Your task to perform on an android device: Go to privacy settings Image 0: 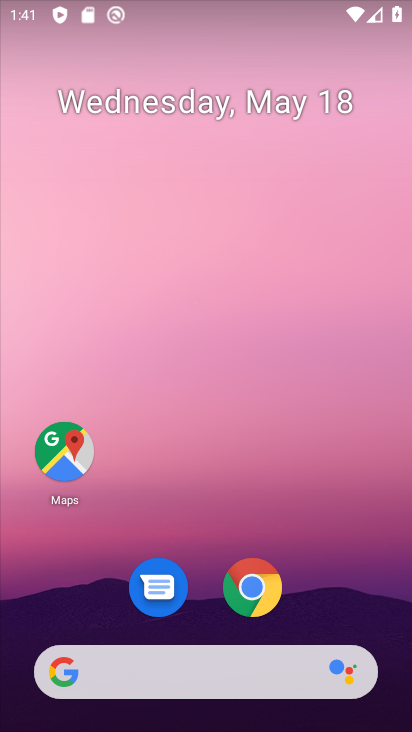
Step 0: drag from (333, 622) to (278, 34)
Your task to perform on an android device: Go to privacy settings Image 1: 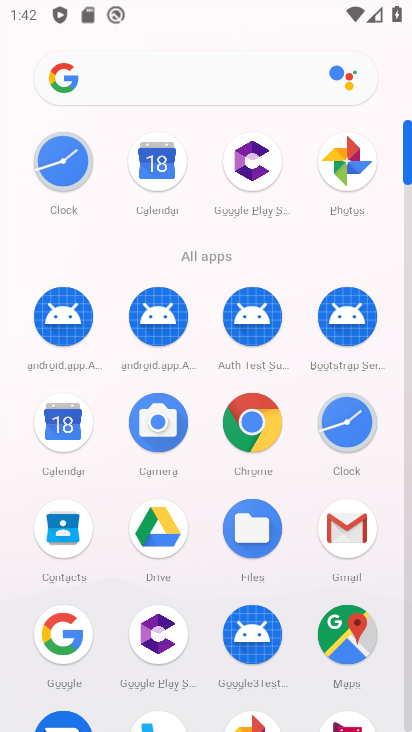
Step 1: drag from (409, 516) to (410, 481)
Your task to perform on an android device: Go to privacy settings Image 2: 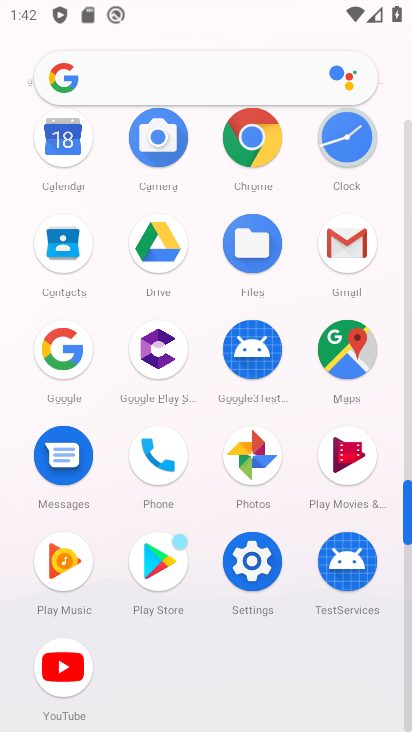
Step 2: click (239, 559)
Your task to perform on an android device: Go to privacy settings Image 3: 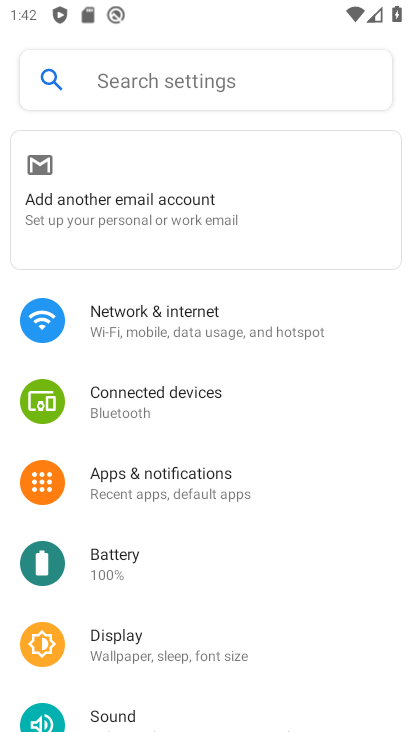
Step 3: drag from (369, 597) to (344, 315)
Your task to perform on an android device: Go to privacy settings Image 4: 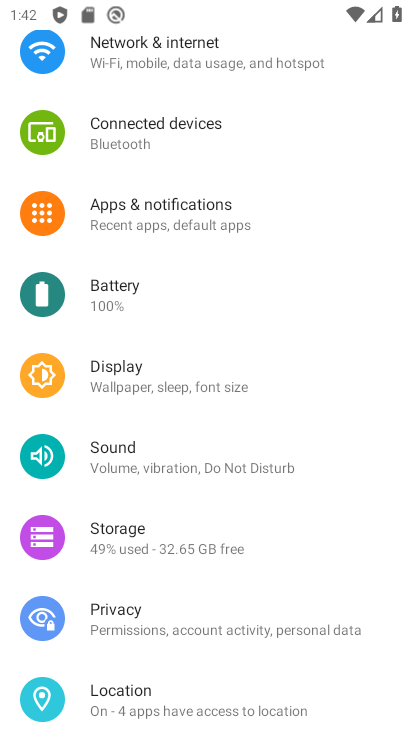
Step 4: click (127, 619)
Your task to perform on an android device: Go to privacy settings Image 5: 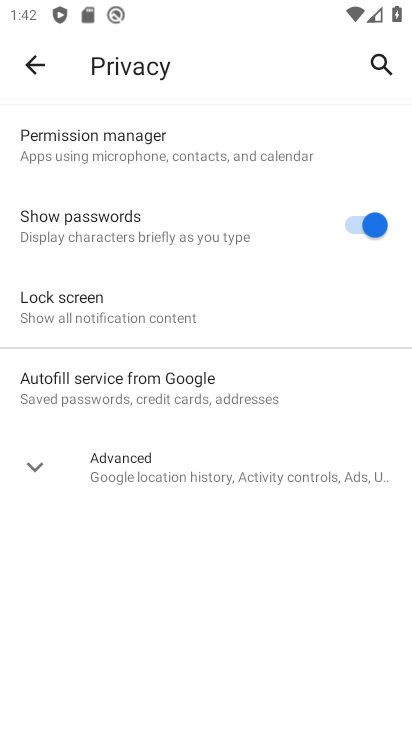
Step 5: task complete